Your task to perform on an android device: change notifications settings Image 0: 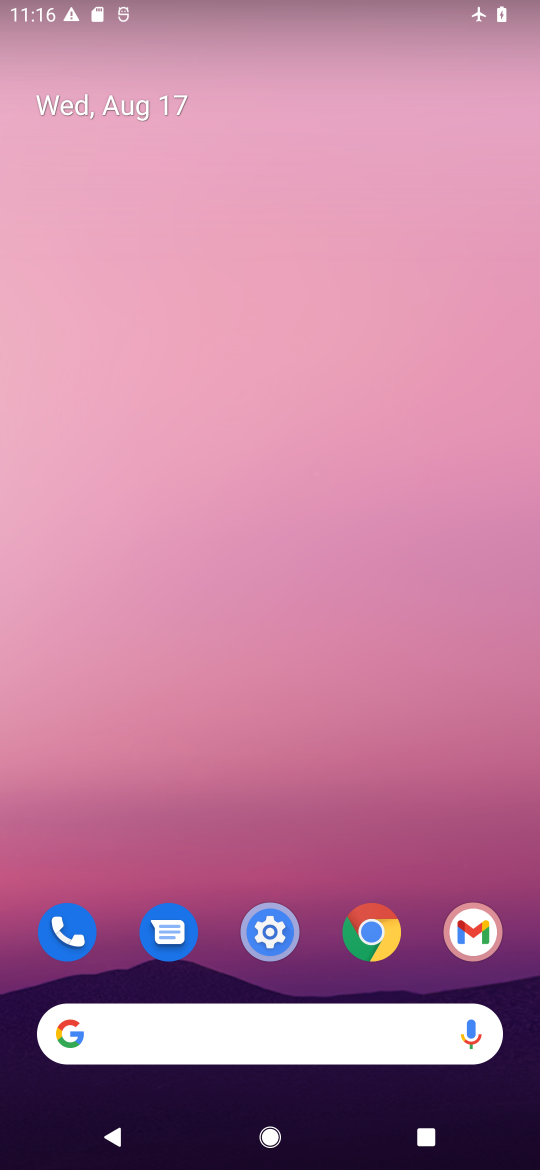
Step 0: click (264, 962)
Your task to perform on an android device: change notifications settings Image 1: 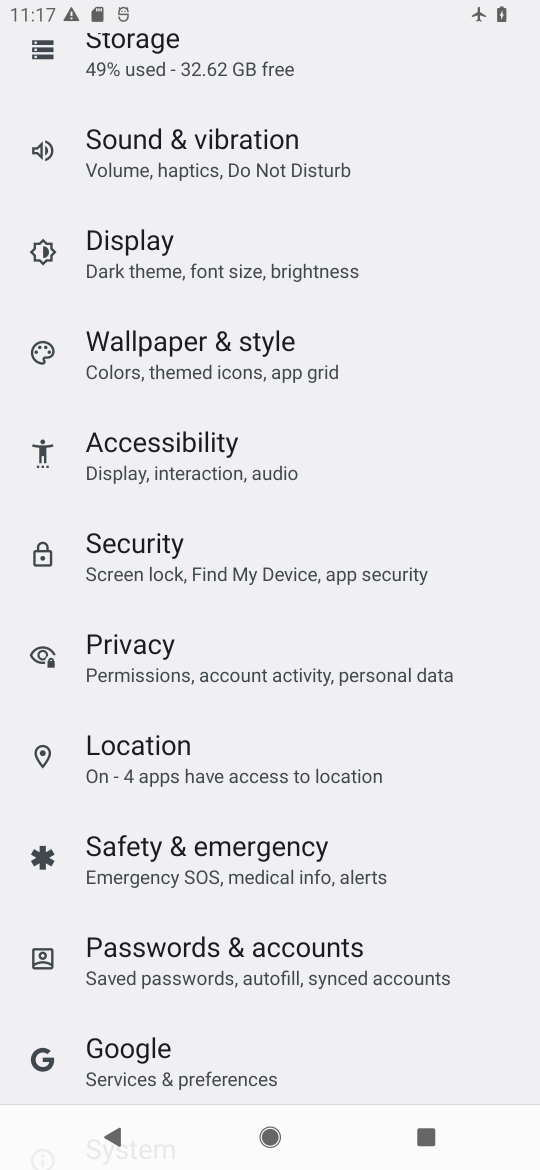
Step 1: drag from (300, 359) to (383, 867)
Your task to perform on an android device: change notifications settings Image 2: 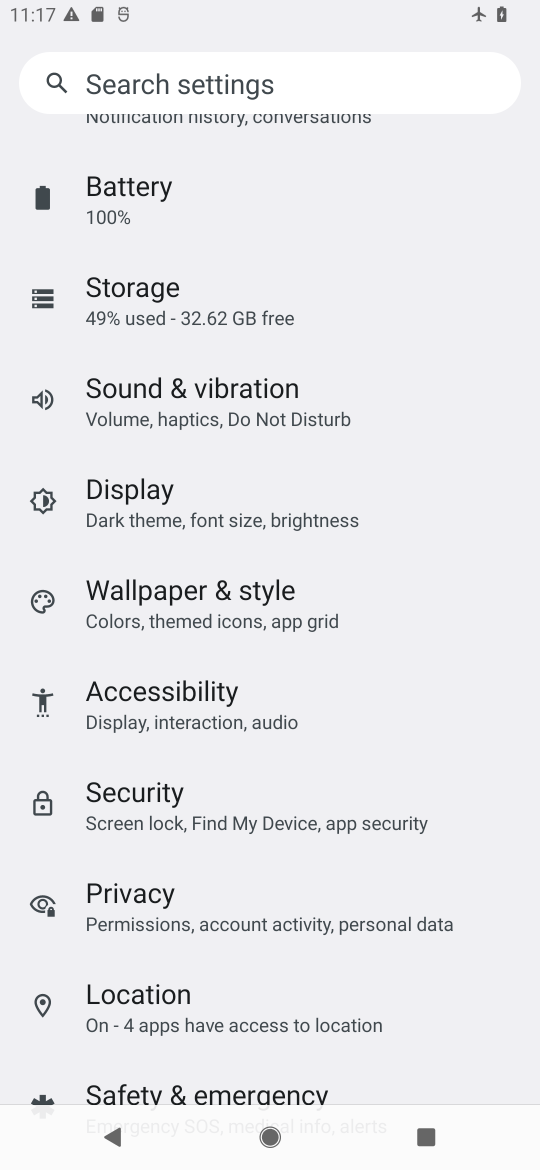
Step 2: drag from (265, 387) to (284, 809)
Your task to perform on an android device: change notifications settings Image 3: 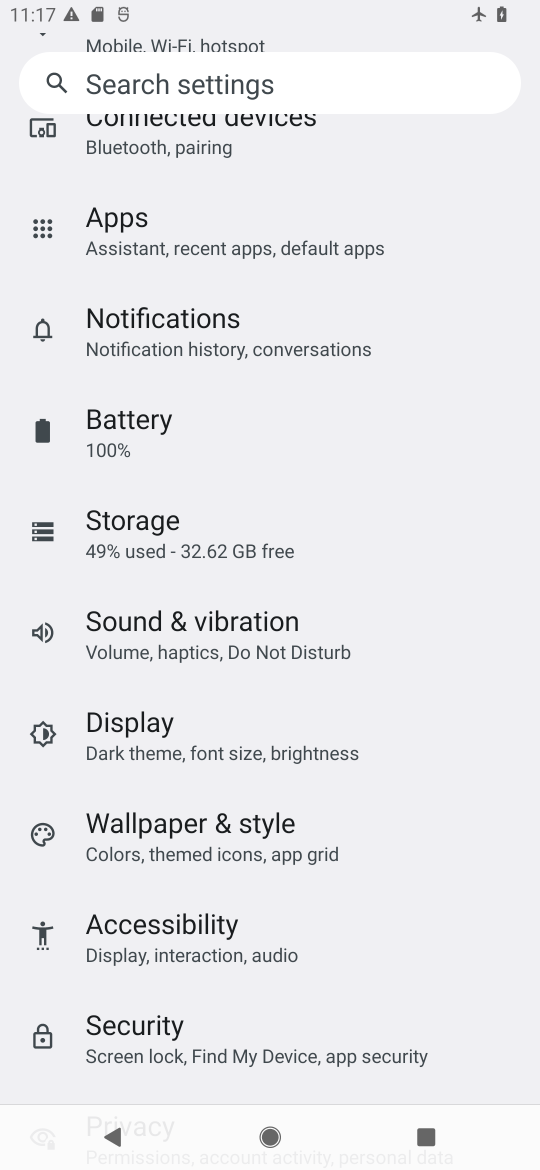
Step 3: click (240, 352)
Your task to perform on an android device: change notifications settings Image 4: 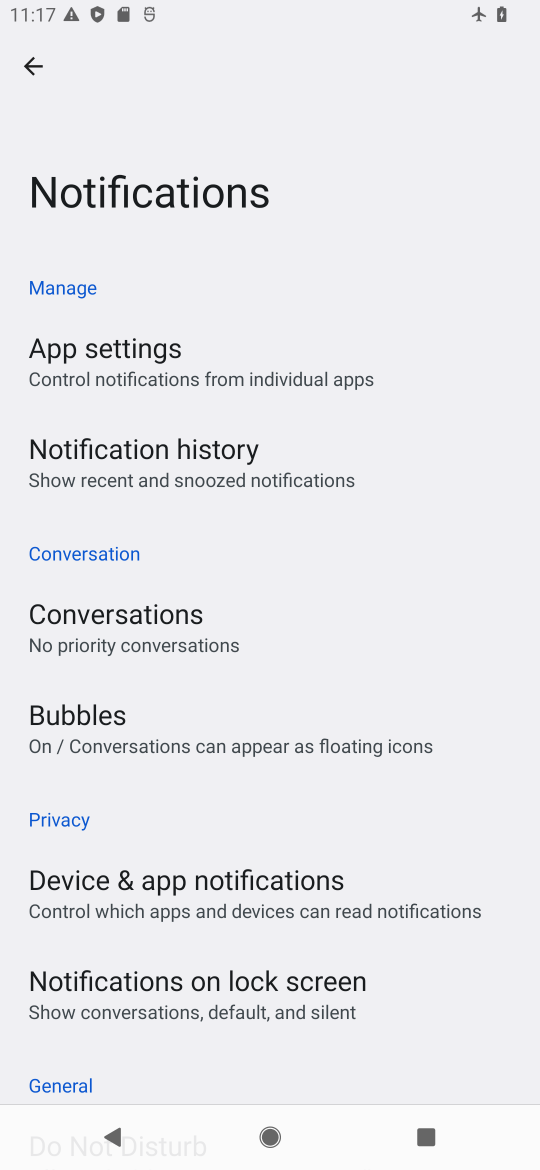
Step 4: click (233, 986)
Your task to perform on an android device: change notifications settings Image 5: 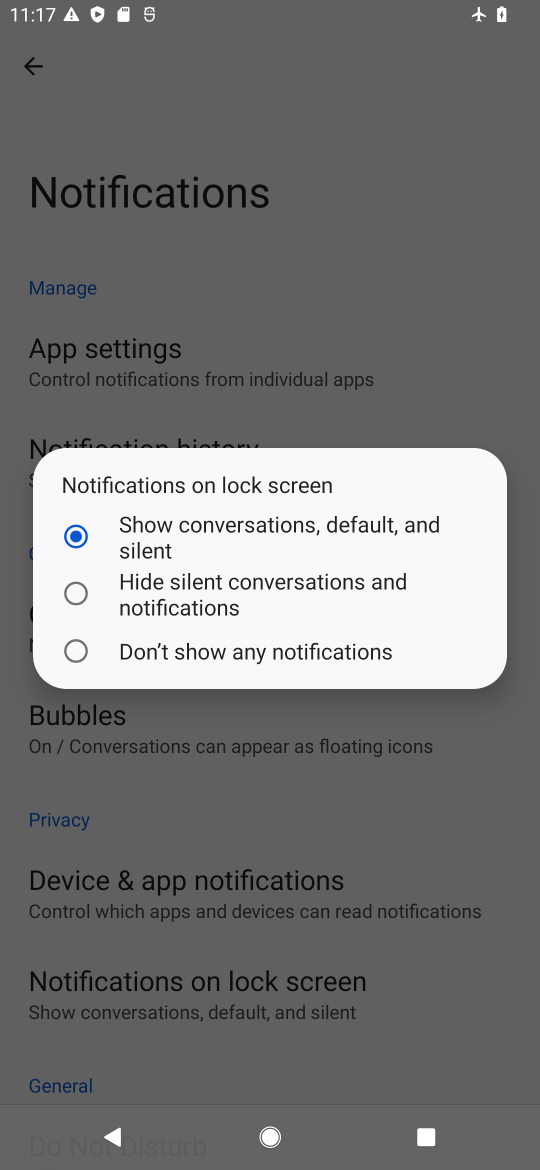
Step 5: click (342, 627)
Your task to perform on an android device: change notifications settings Image 6: 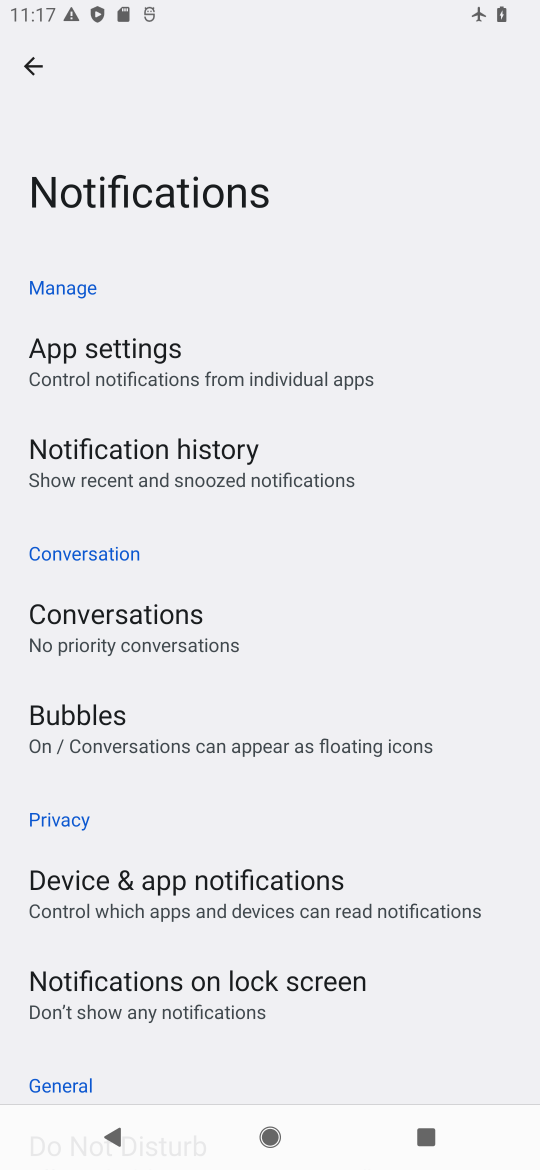
Step 6: task complete